Your task to perform on an android device: Go to calendar. Show me events next week Image 0: 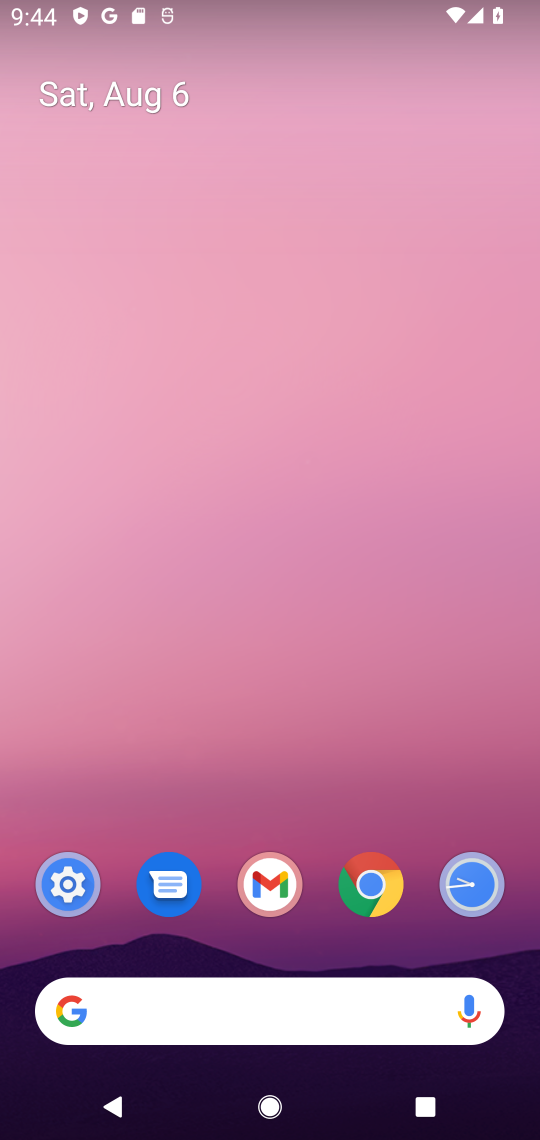
Step 0: drag from (416, 944) to (421, 216)
Your task to perform on an android device: Go to calendar. Show me events next week Image 1: 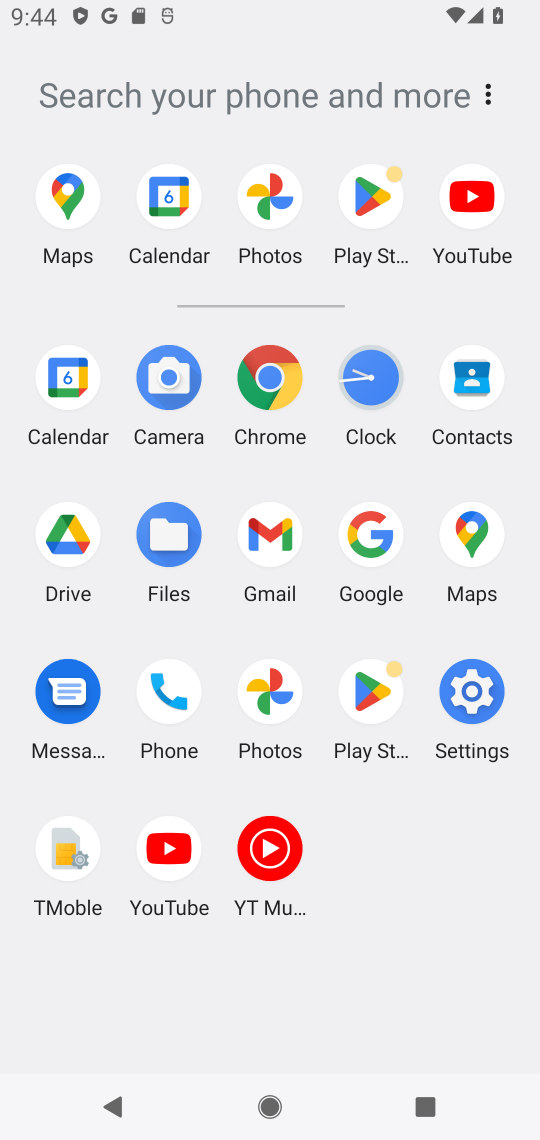
Step 1: click (66, 374)
Your task to perform on an android device: Go to calendar. Show me events next week Image 2: 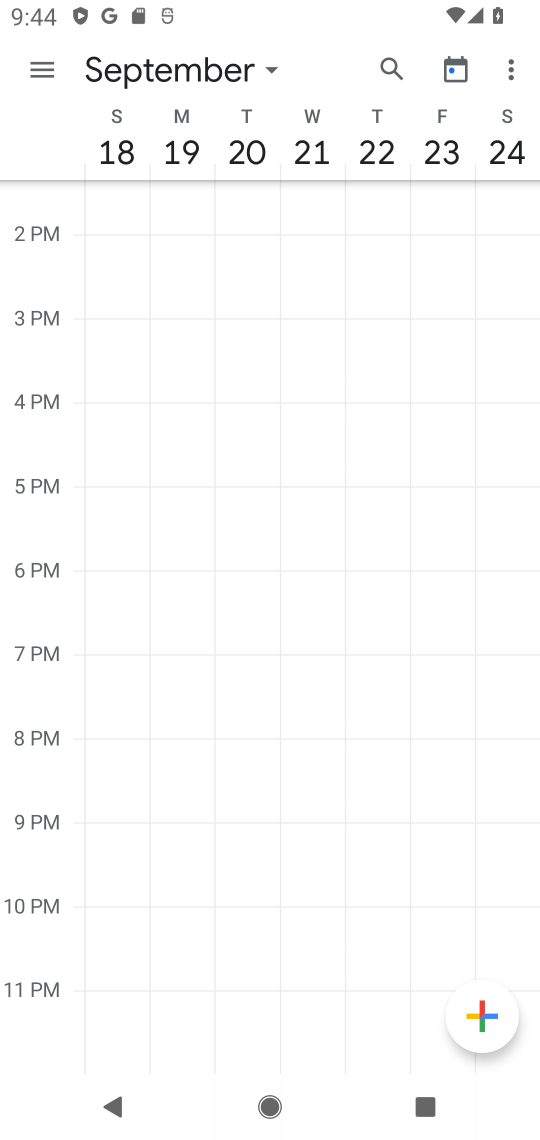
Step 2: click (276, 62)
Your task to perform on an android device: Go to calendar. Show me events next week Image 3: 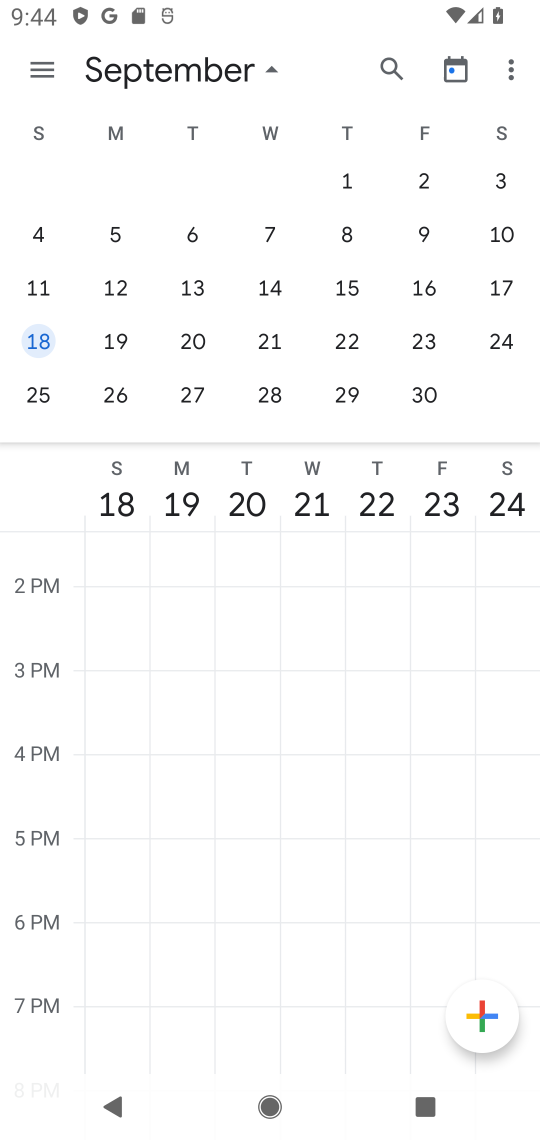
Step 3: click (31, 286)
Your task to perform on an android device: Go to calendar. Show me events next week Image 4: 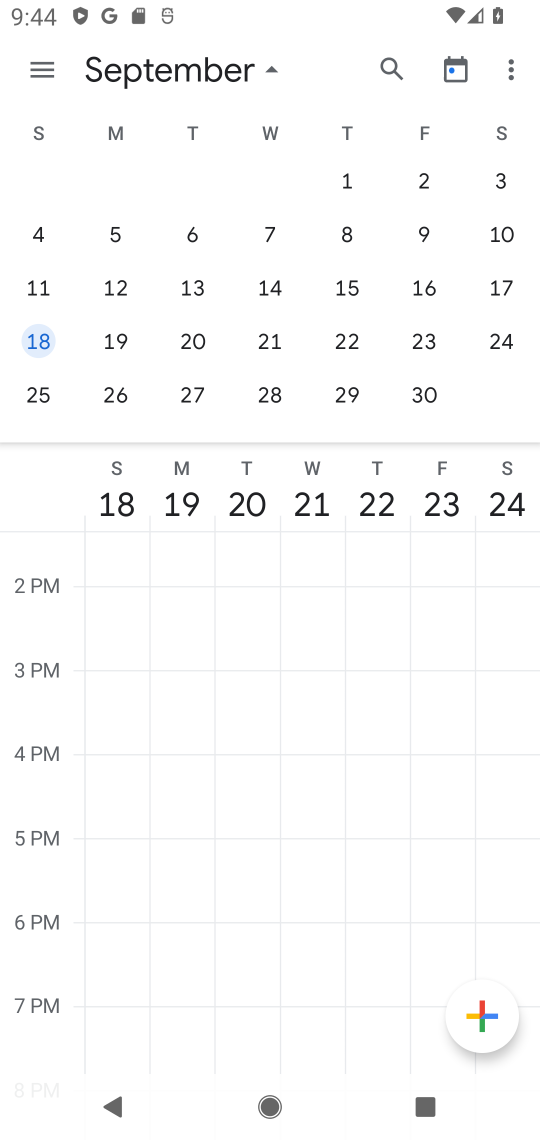
Step 4: drag from (79, 274) to (533, 333)
Your task to perform on an android device: Go to calendar. Show me events next week Image 5: 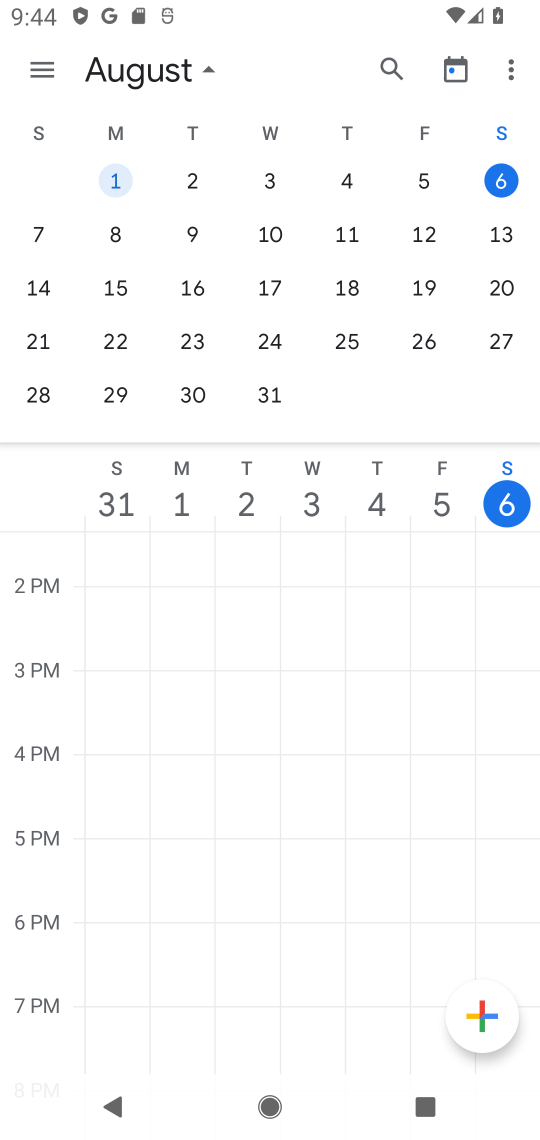
Step 5: click (26, 234)
Your task to perform on an android device: Go to calendar. Show me events next week Image 6: 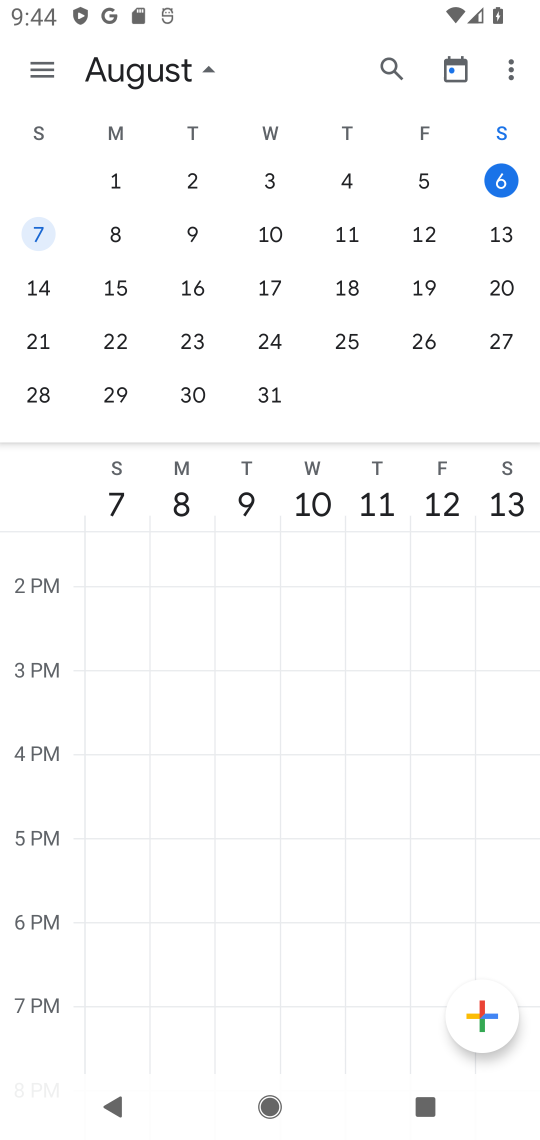
Step 6: task complete